Your task to perform on an android device: Show me recent news Image 0: 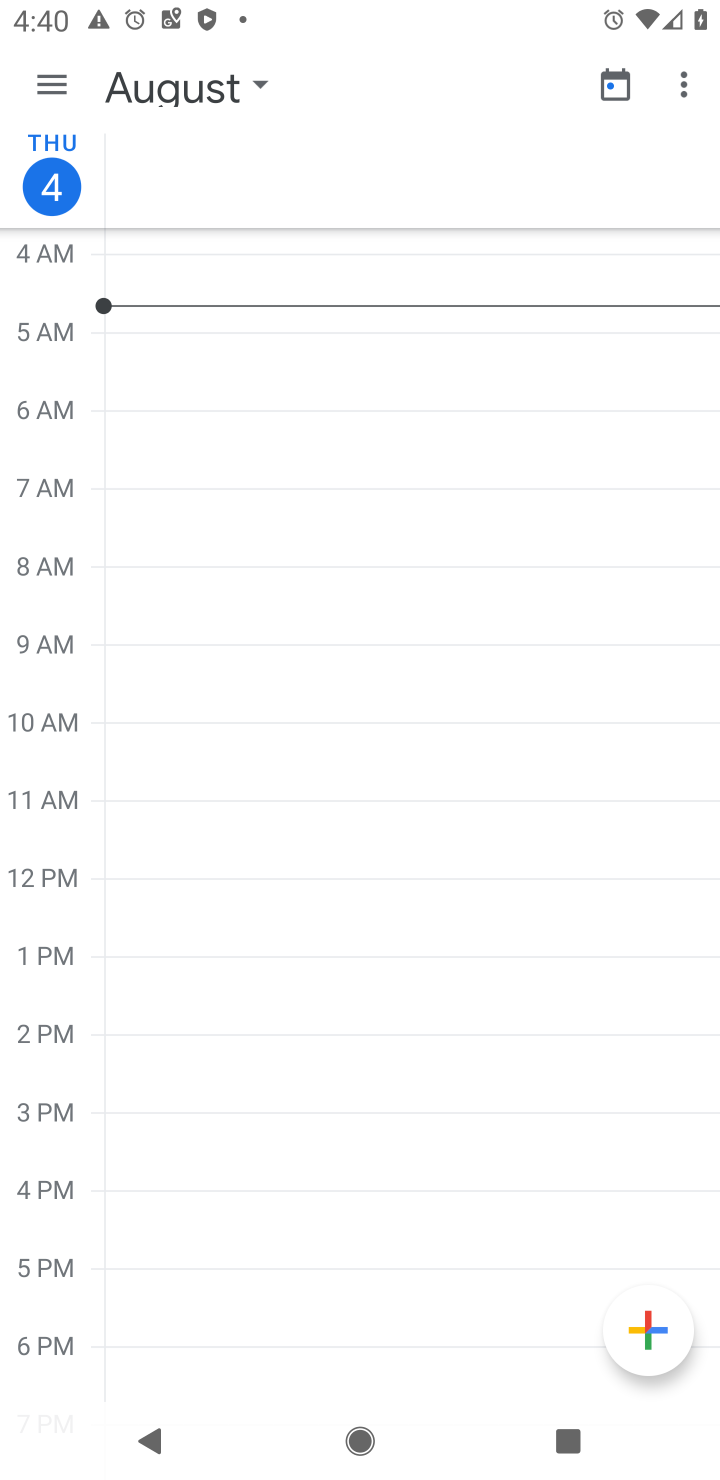
Step 0: press home button
Your task to perform on an android device: Show me recent news Image 1: 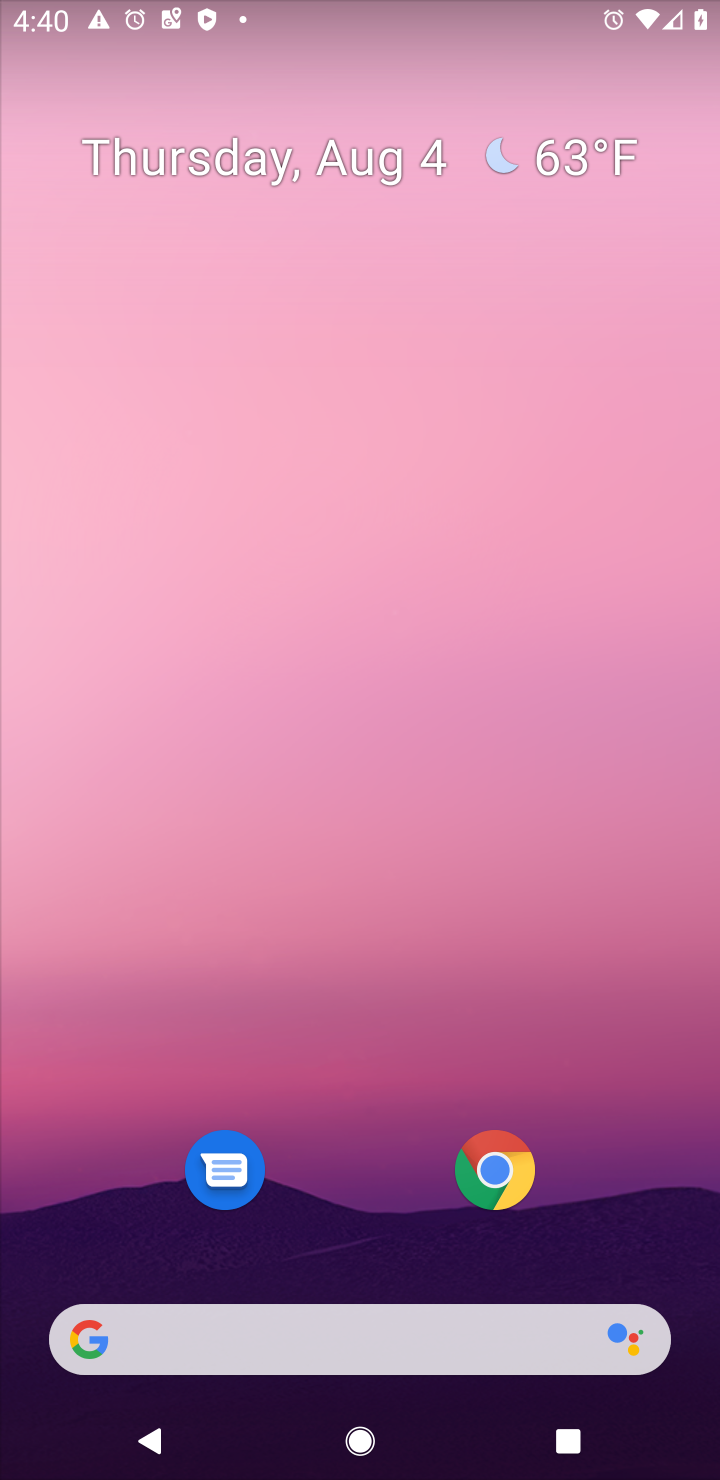
Step 1: drag from (18, 632) to (689, 661)
Your task to perform on an android device: Show me recent news Image 2: 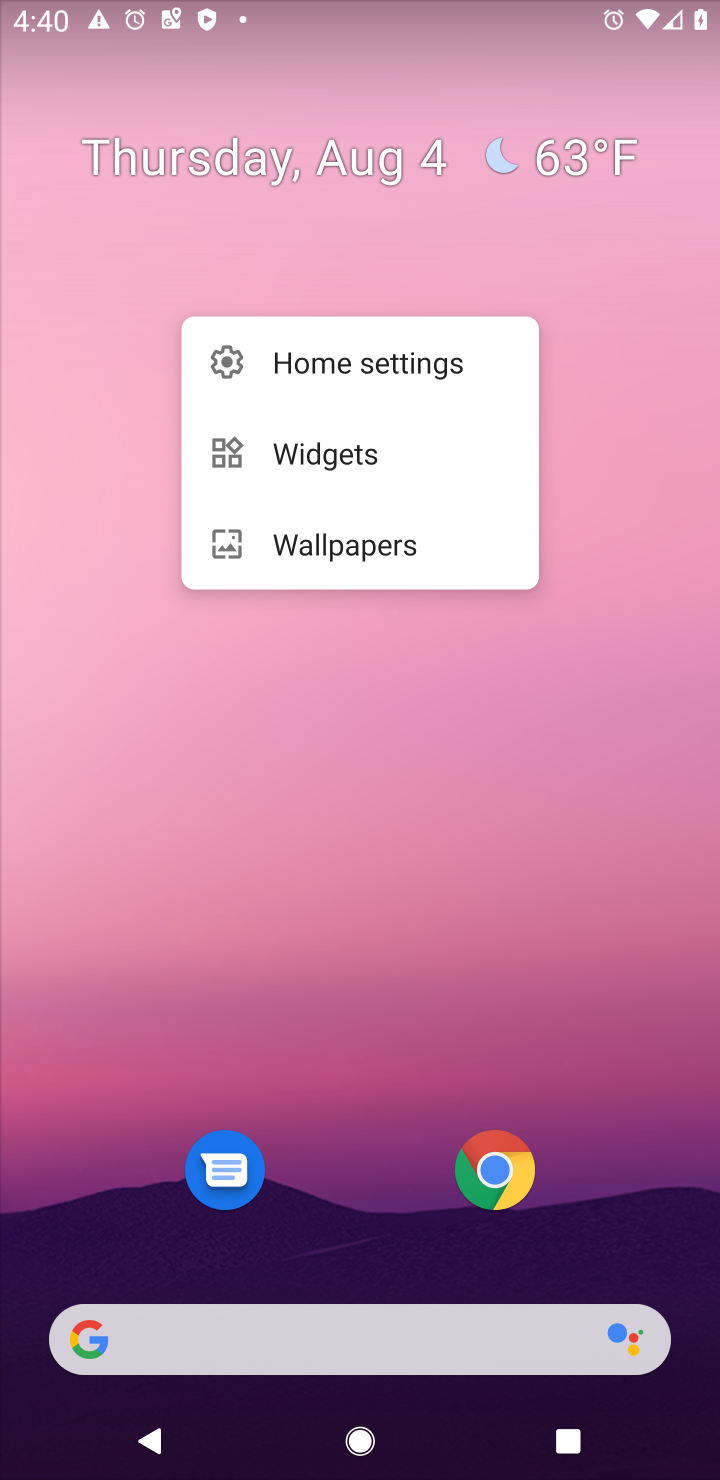
Step 2: click (26, 751)
Your task to perform on an android device: Show me recent news Image 3: 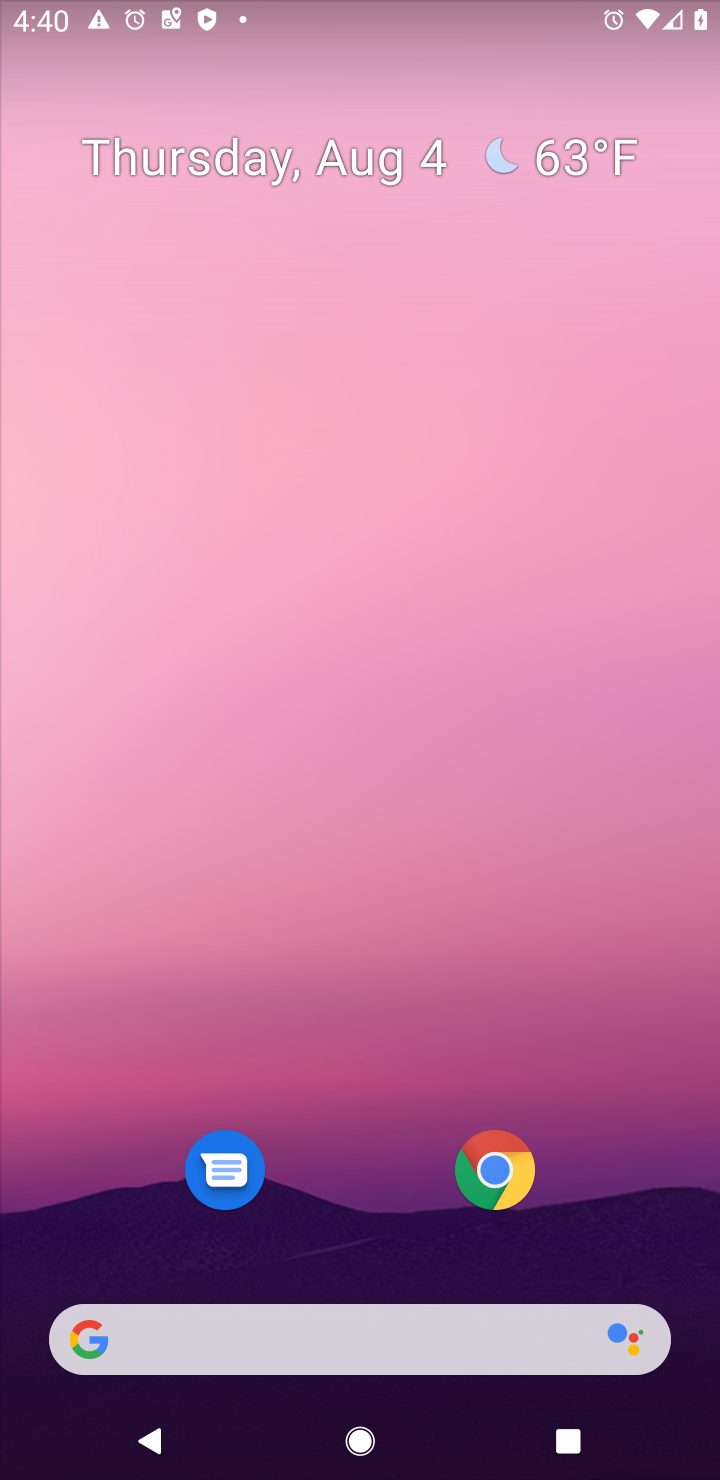
Step 3: task complete